Your task to perform on an android device: turn off sleep mode Image 0: 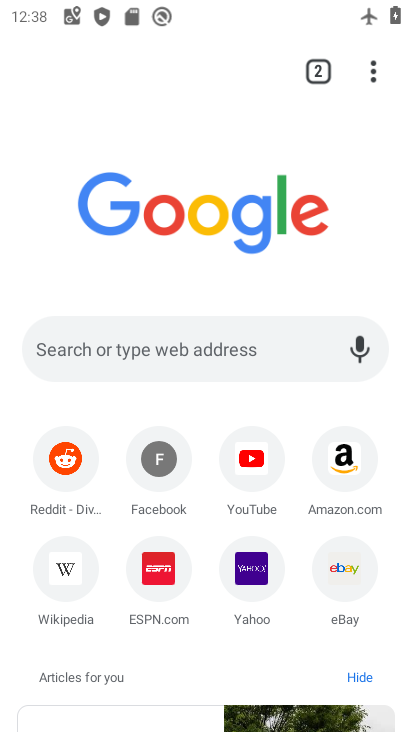
Step 0: drag from (188, 659) to (214, 339)
Your task to perform on an android device: turn off sleep mode Image 1: 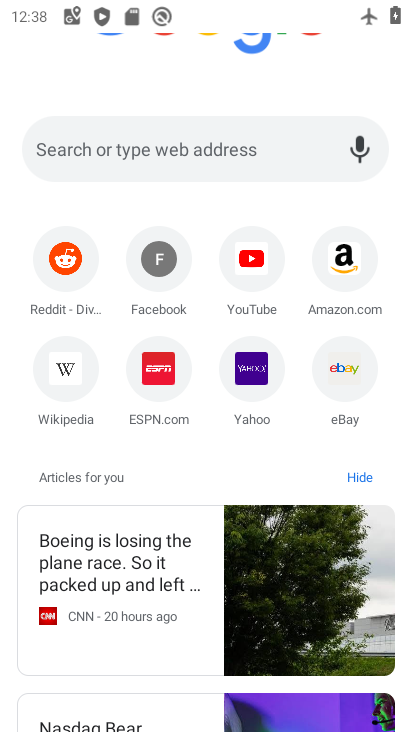
Step 1: drag from (212, 216) to (243, 566)
Your task to perform on an android device: turn off sleep mode Image 2: 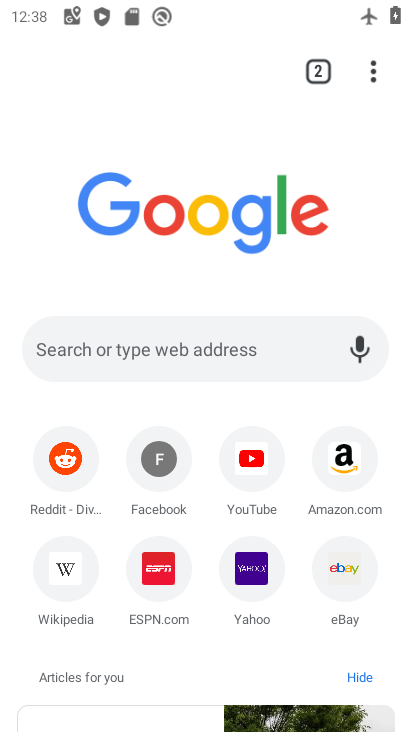
Step 2: press back button
Your task to perform on an android device: turn off sleep mode Image 3: 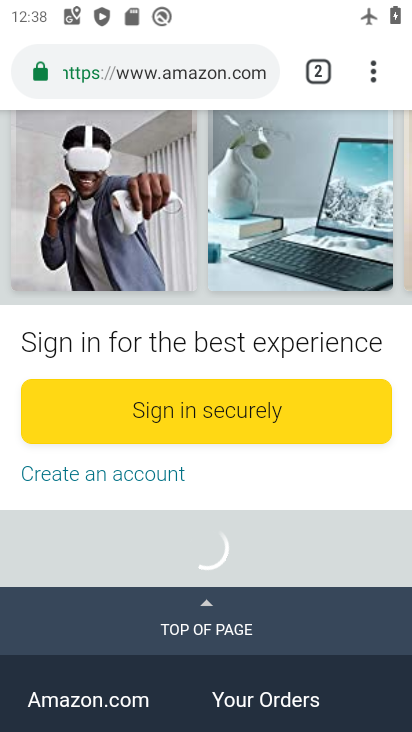
Step 3: press home button
Your task to perform on an android device: turn off sleep mode Image 4: 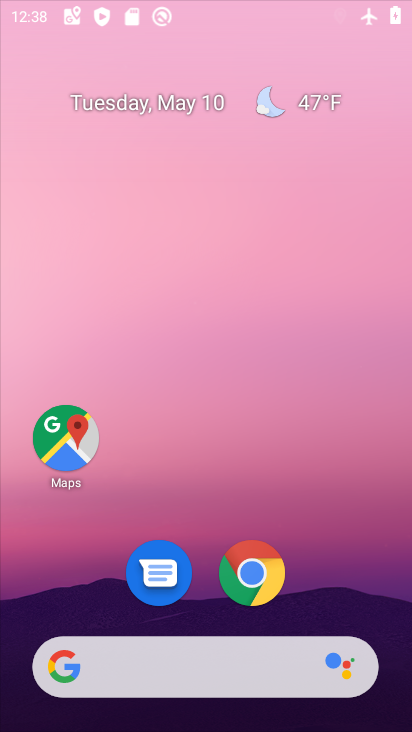
Step 4: drag from (197, 551) to (199, 333)
Your task to perform on an android device: turn off sleep mode Image 5: 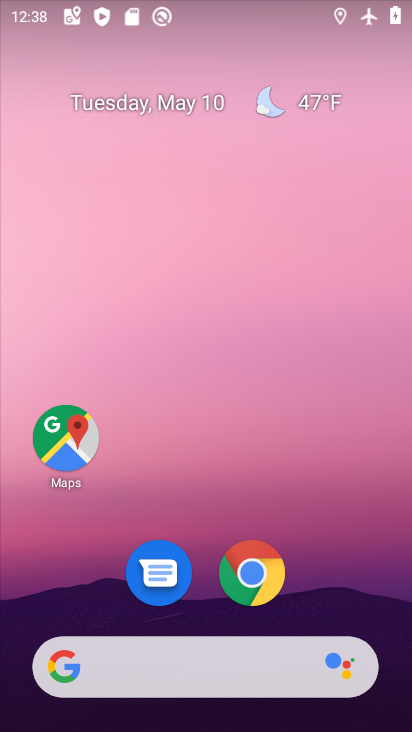
Step 5: drag from (195, 600) to (237, 214)
Your task to perform on an android device: turn off sleep mode Image 6: 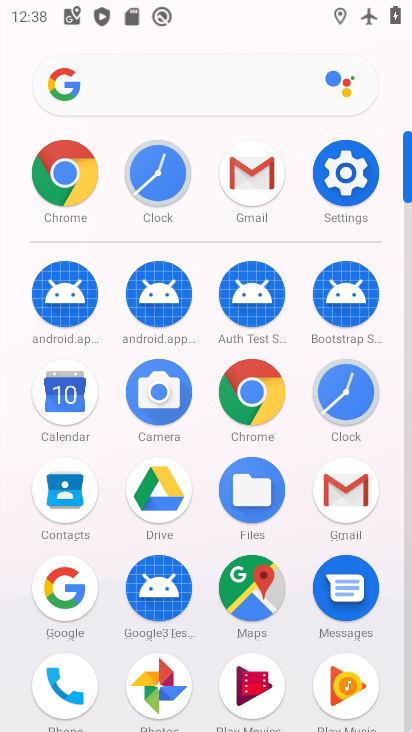
Step 6: click (362, 169)
Your task to perform on an android device: turn off sleep mode Image 7: 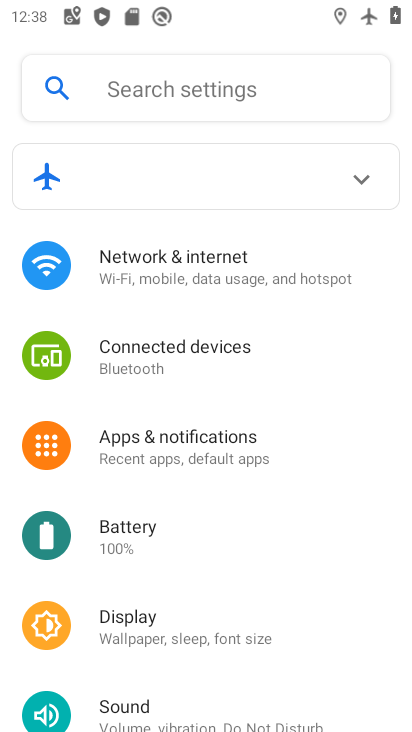
Step 7: drag from (149, 566) to (190, 289)
Your task to perform on an android device: turn off sleep mode Image 8: 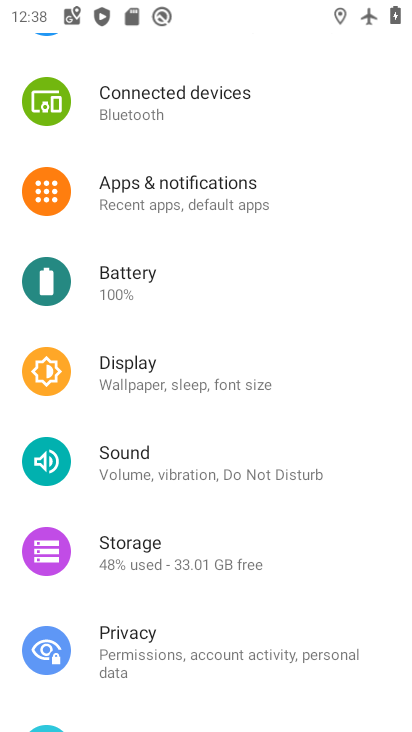
Step 8: click (155, 381)
Your task to perform on an android device: turn off sleep mode Image 9: 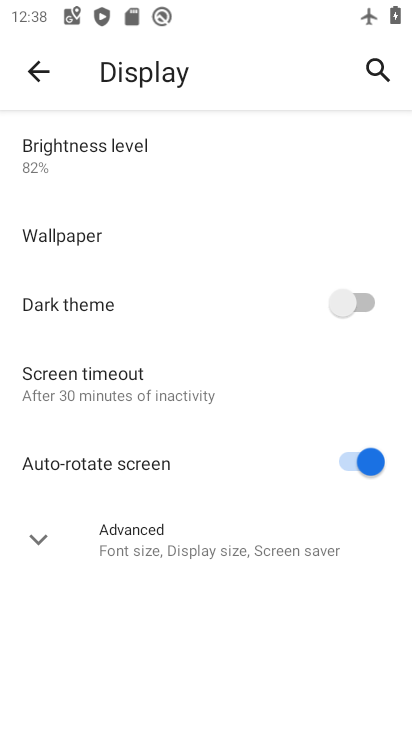
Step 9: click (167, 384)
Your task to perform on an android device: turn off sleep mode Image 10: 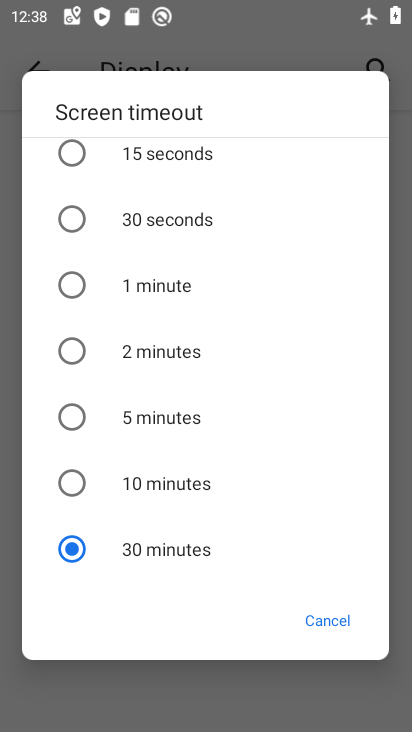
Step 10: task complete